Your task to perform on an android device: Open Amazon Image 0: 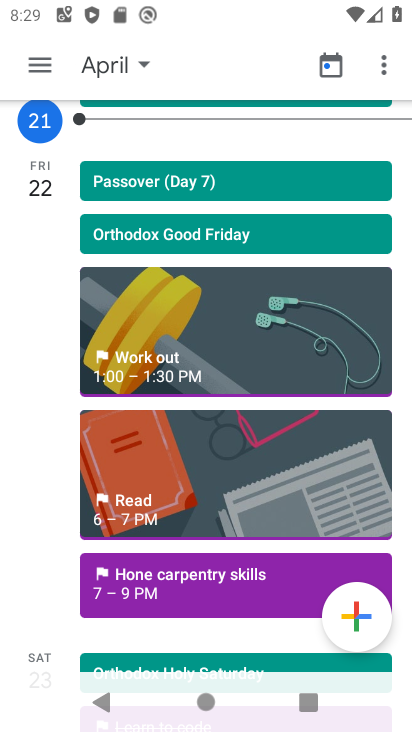
Step 0: press home button
Your task to perform on an android device: Open Amazon Image 1: 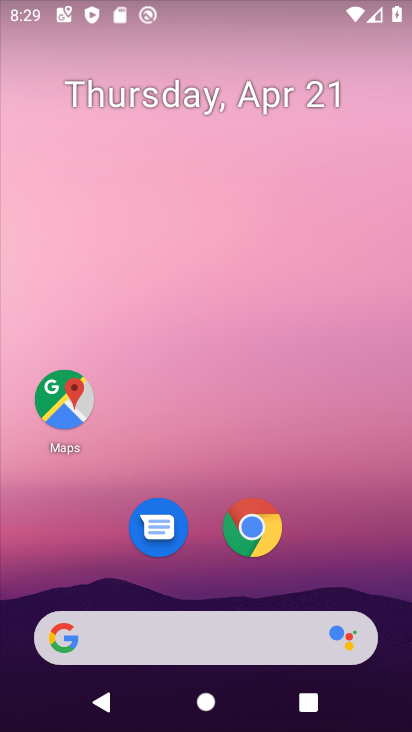
Step 1: drag from (256, 480) to (308, 33)
Your task to perform on an android device: Open Amazon Image 2: 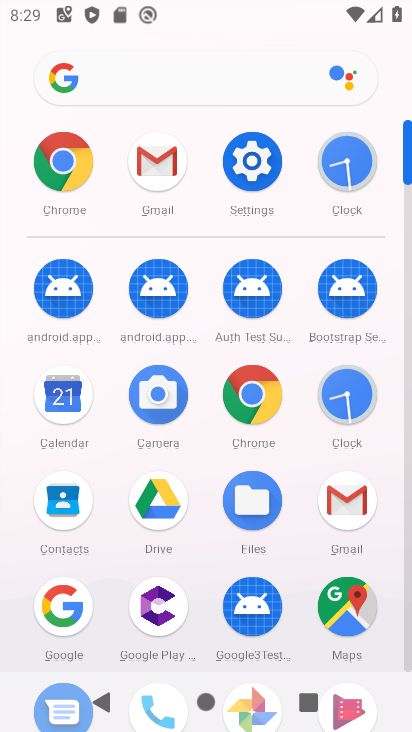
Step 2: click (87, 174)
Your task to perform on an android device: Open Amazon Image 3: 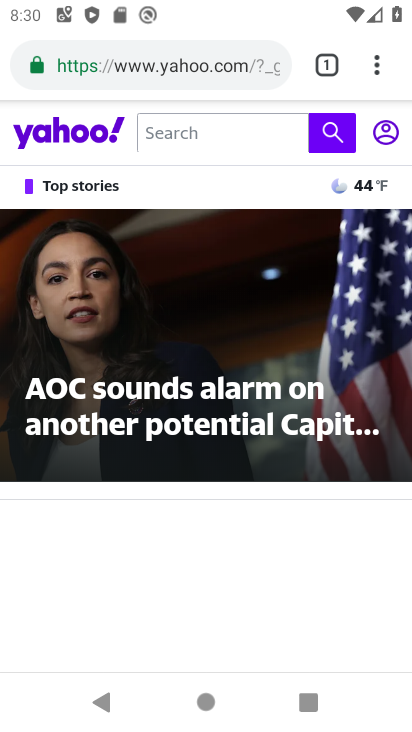
Step 3: drag from (313, 67) to (276, 589)
Your task to perform on an android device: Open Amazon Image 4: 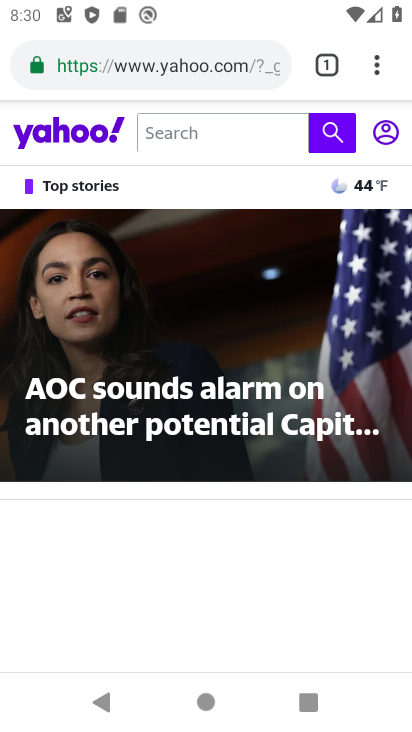
Step 4: drag from (317, 60) to (302, 274)
Your task to perform on an android device: Open Amazon Image 5: 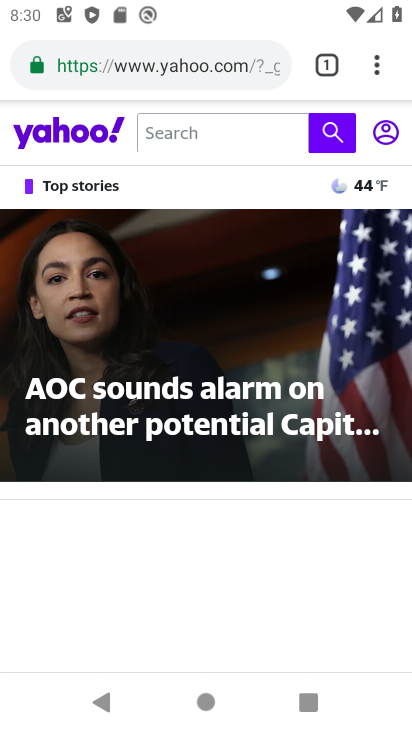
Step 5: click (304, 98)
Your task to perform on an android device: Open Amazon Image 6: 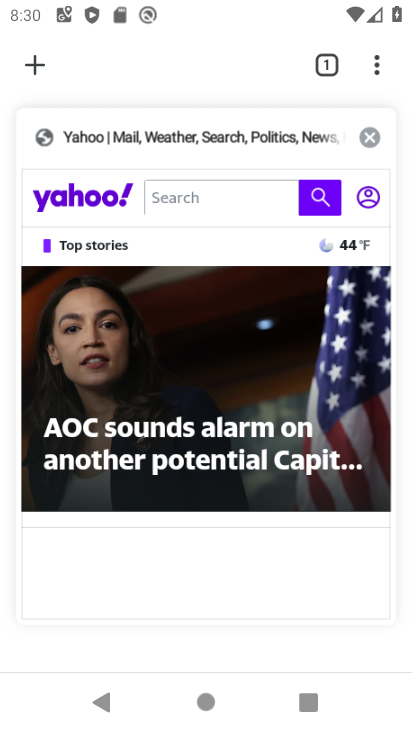
Step 6: click (45, 64)
Your task to perform on an android device: Open Amazon Image 7: 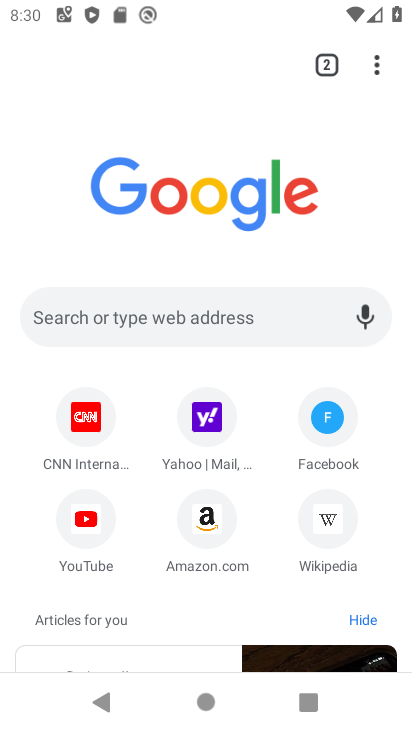
Step 7: click (222, 525)
Your task to perform on an android device: Open Amazon Image 8: 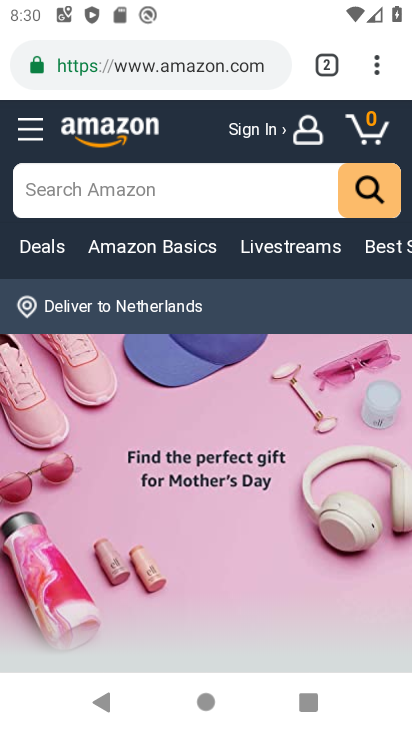
Step 8: task complete